Your task to perform on an android device: turn on priority inbox in the gmail app Image 0: 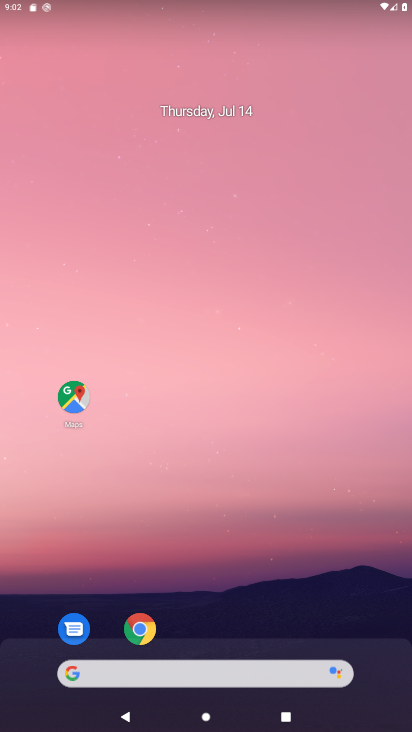
Step 0: drag from (188, 495) to (254, 1)
Your task to perform on an android device: turn on priority inbox in the gmail app Image 1: 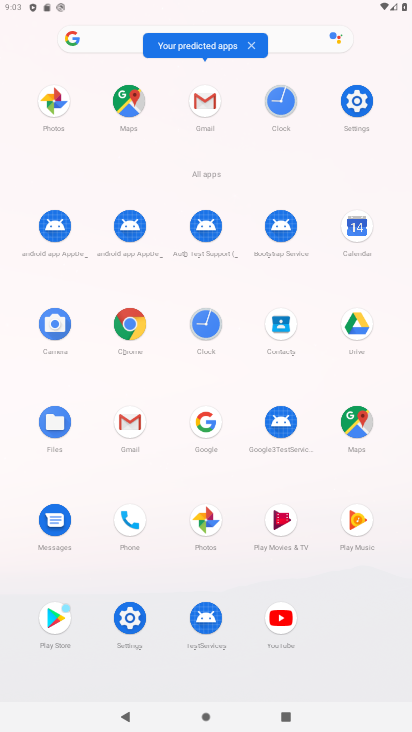
Step 1: click (202, 97)
Your task to perform on an android device: turn on priority inbox in the gmail app Image 2: 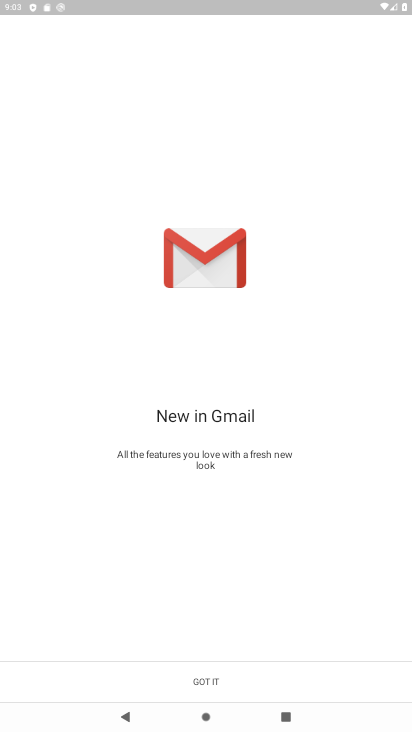
Step 2: click (205, 683)
Your task to perform on an android device: turn on priority inbox in the gmail app Image 3: 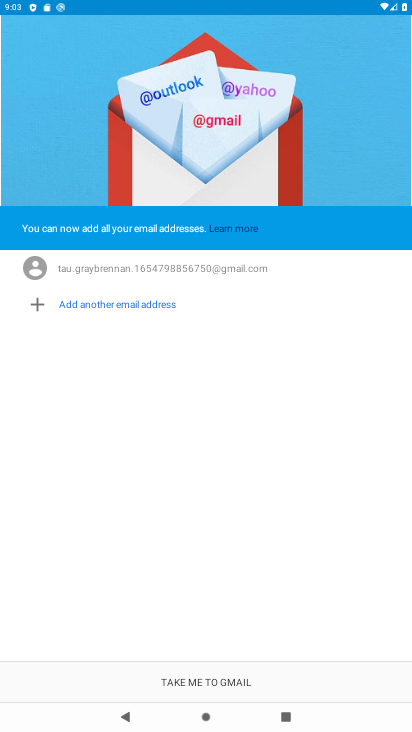
Step 3: click (210, 676)
Your task to perform on an android device: turn on priority inbox in the gmail app Image 4: 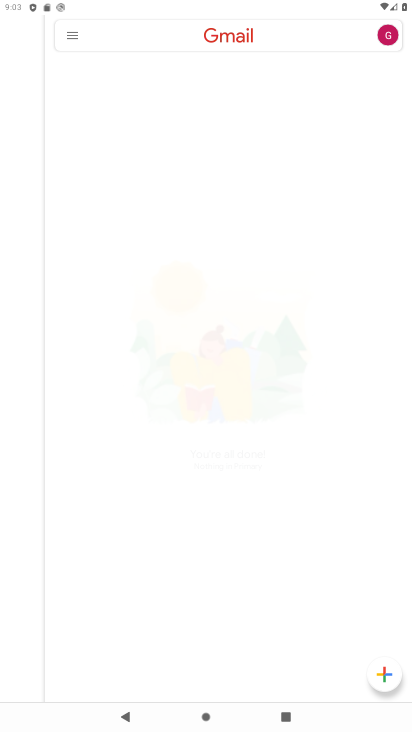
Step 4: click (70, 34)
Your task to perform on an android device: turn on priority inbox in the gmail app Image 5: 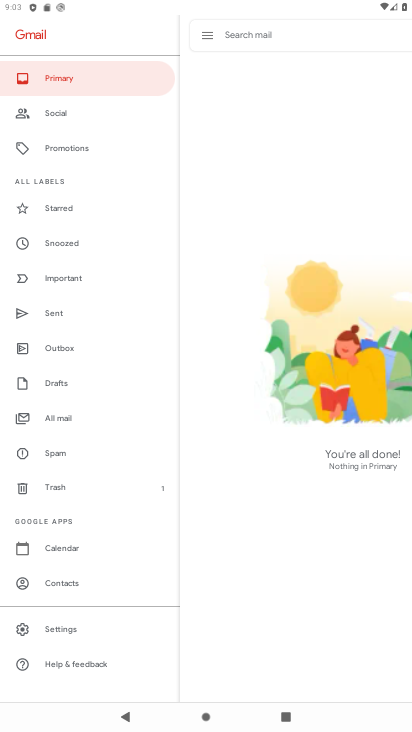
Step 5: click (66, 626)
Your task to perform on an android device: turn on priority inbox in the gmail app Image 6: 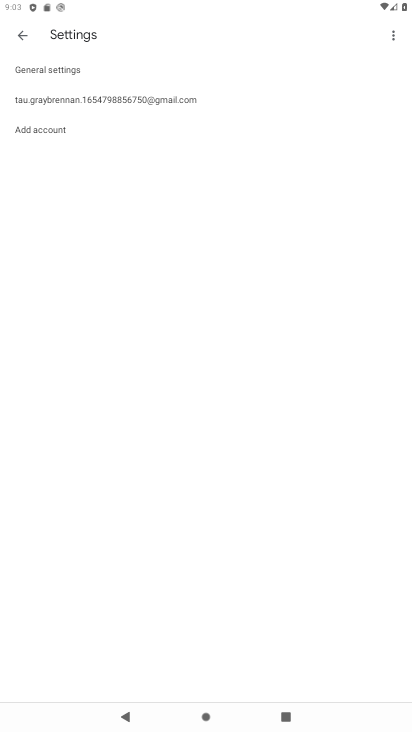
Step 6: click (116, 98)
Your task to perform on an android device: turn on priority inbox in the gmail app Image 7: 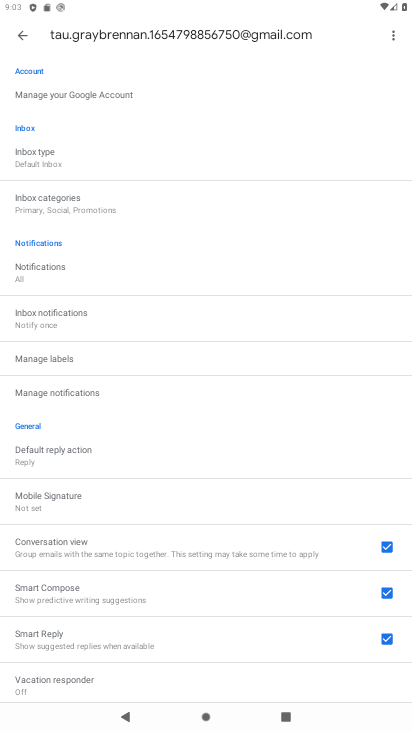
Step 7: click (67, 155)
Your task to perform on an android device: turn on priority inbox in the gmail app Image 8: 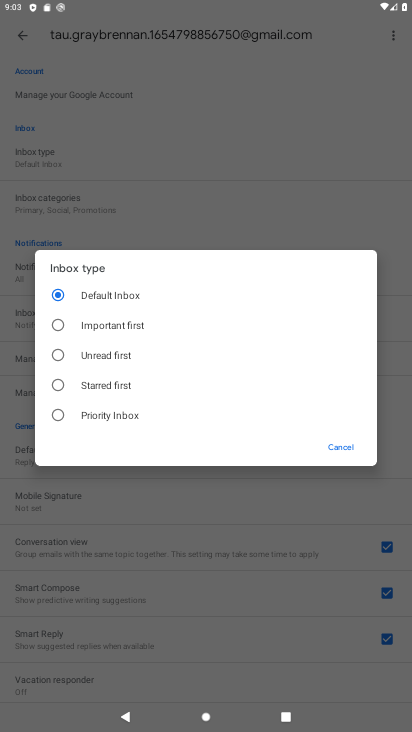
Step 8: click (65, 420)
Your task to perform on an android device: turn on priority inbox in the gmail app Image 9: 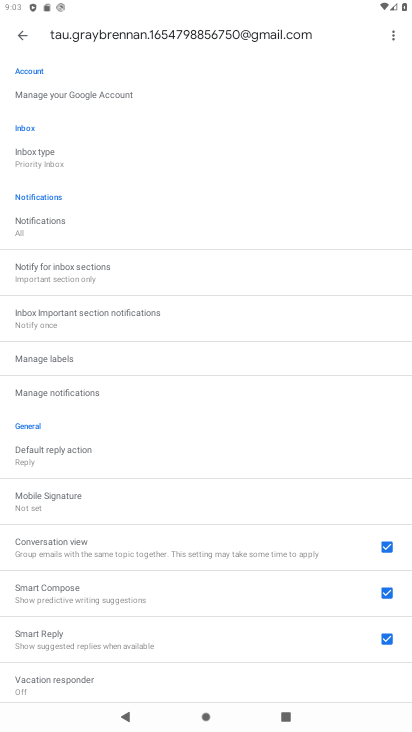
Step 9: task complete